Your task to perform on an android device: turn off smart reply in the gmail app Image 0: 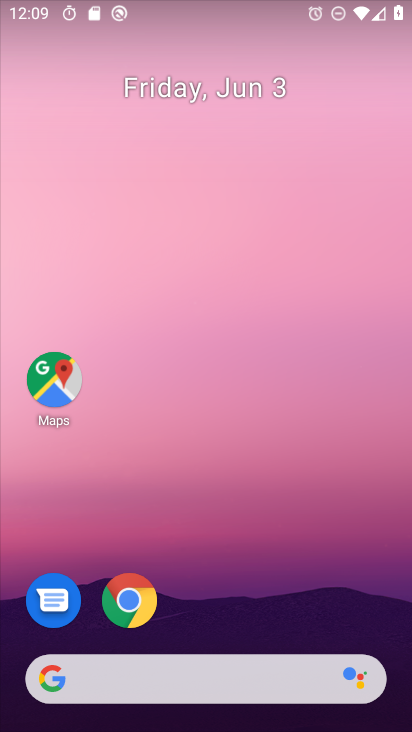
Step 0: drag from (194, 578) to (217, 120)
Your task to perform on an android device: turn off smart reply in the gmail app Image 1: 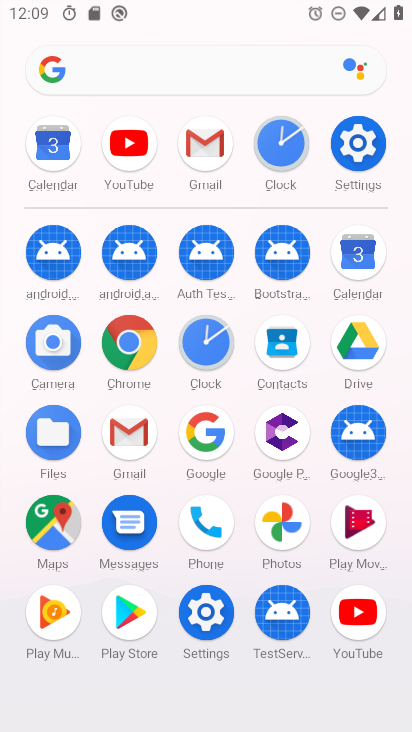
Step 1: click (125, 433)
Your task to perform on an android device: turn off smart reply in the gmail app Image 2: 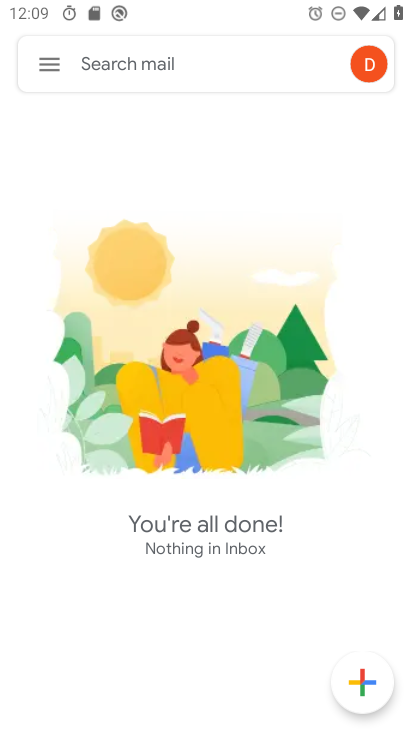
Step 2: click (44, 63)
Your task to perform on an android device: turn off smart reply in the gmail app Image 3: 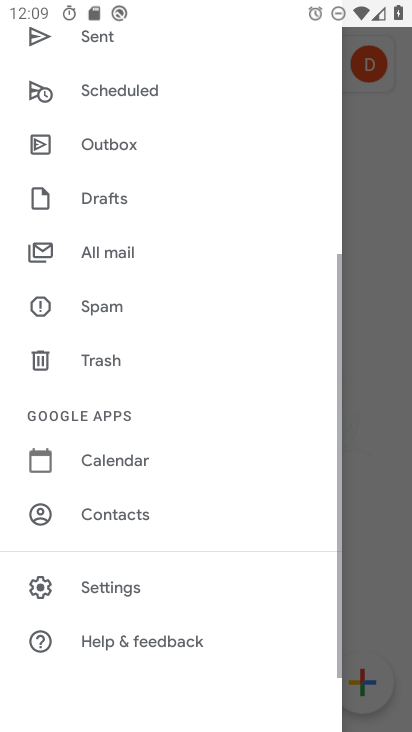
Step 3: click (137, 592)
Your task to perform on an android device: turn off smart reply in the gmail app Image 4: 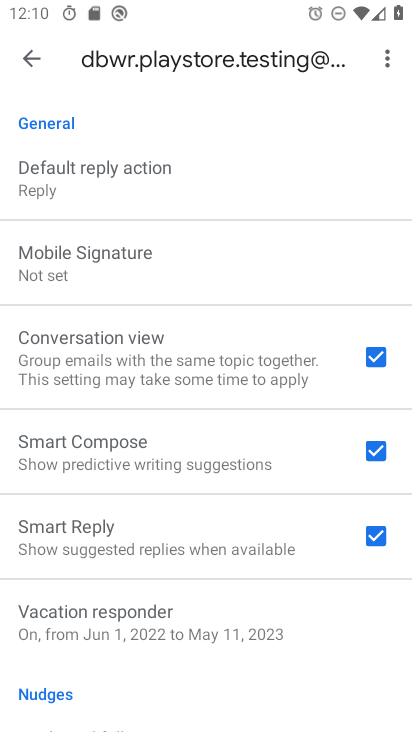
Step 4: click (377, 532)
Your task to perform on an android device: turn off smart reply in the gmail app Image 5: 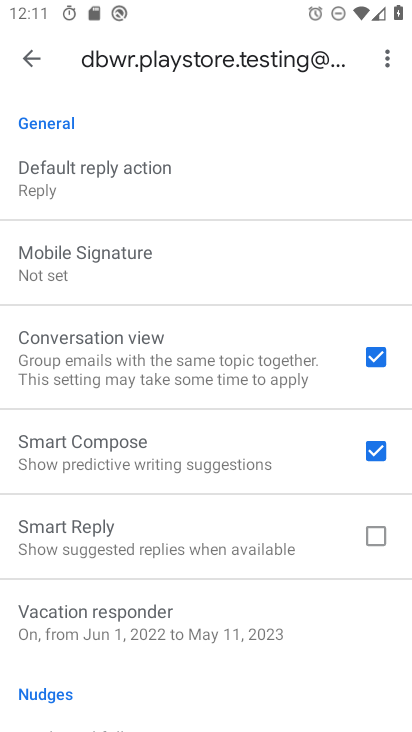
Step 5: task complete